Your task to perform on an android device: Go to CNN.com Image 0: 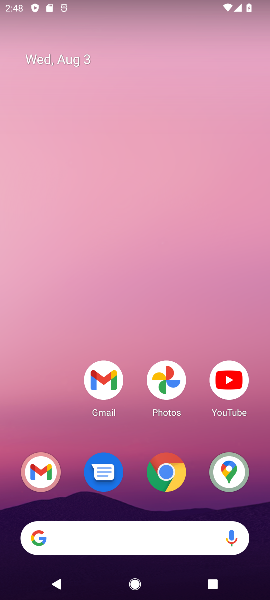
Step 0: drag from (201, 447) to (100, 74)
Your task to perform on an android device: Go to CNN.com Image 1: 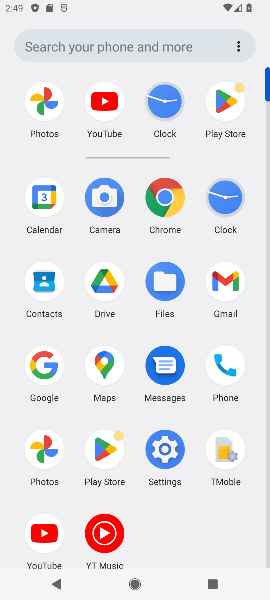
Step 1: click (51, 364)
Your task to perform on an android device: Go to CNN.com Image 2: 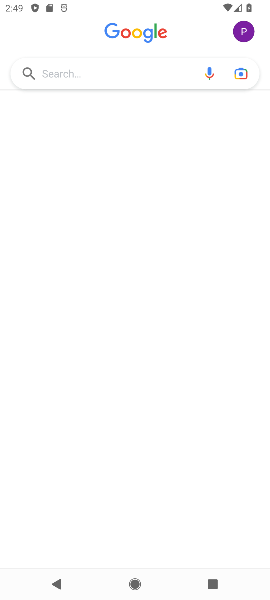
Step 2: click (47, 79)
Your task to perform on an android device: Go to CNN.com Image 3: 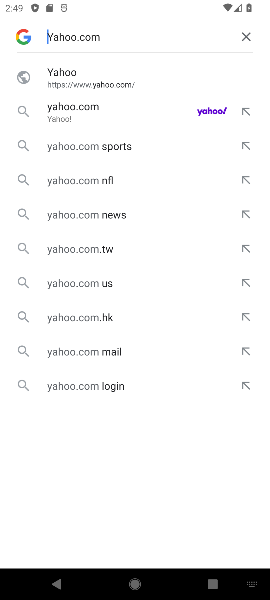
Step 3: click (250, 32)
Your task to perform on an android device: Go to CNN.com Image 4: 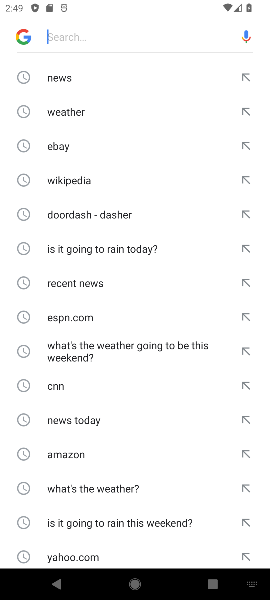
Step 4: click (69, 393)
Your task to perform on an android device: Go to CNN.com Image 5: 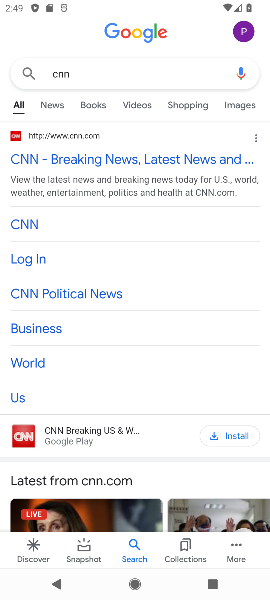
Step 5: task complete